Your task to perform on an android device: Open Google Chrome and open the bookmarks view Image 0: 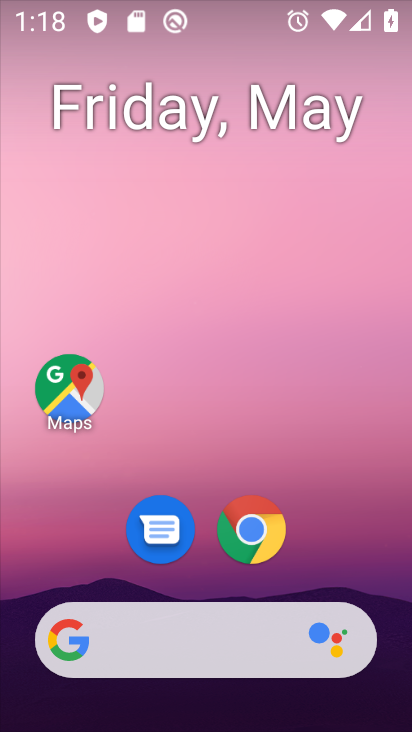
Step 0: click (255, 527)
Your task to perform on an android device: Open Google Chrome and open the bookmarks view Image 1: 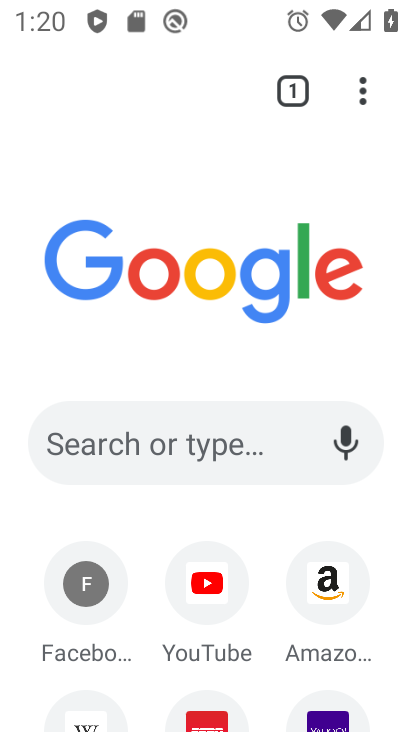
Step 1: click (359, 84)
Your task to perform on an android device: Open Google Chrome and open the bookmarks view Image 2: 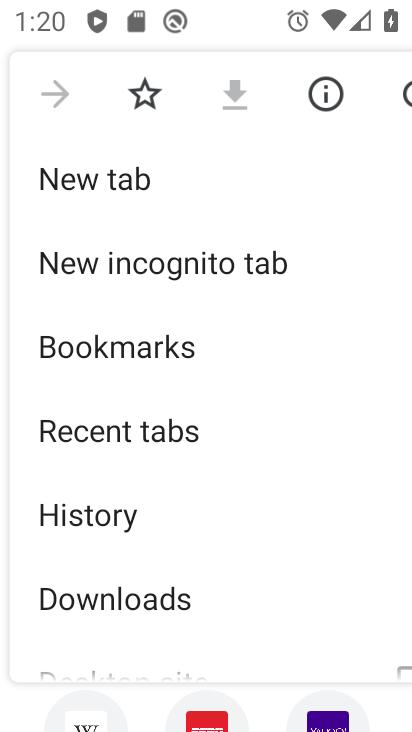
Step 2: click (111, 345)
Your task to perform on an android device: Open Google Chrome and open the bookmarks view Image 3: 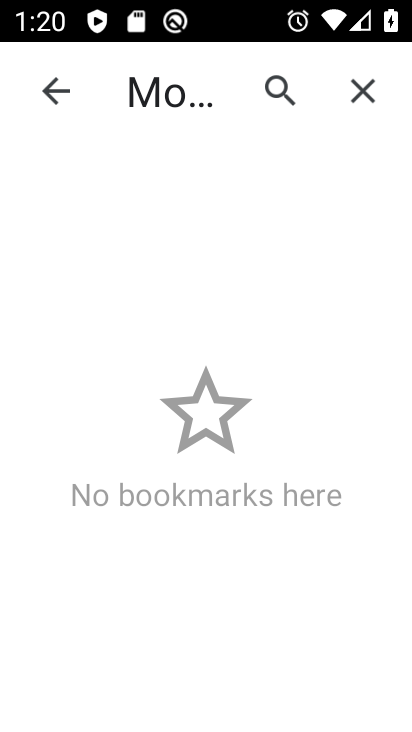
Step 3: task complete